Your task to perform on an android device: Show me popular videos on Youtube Image 0: 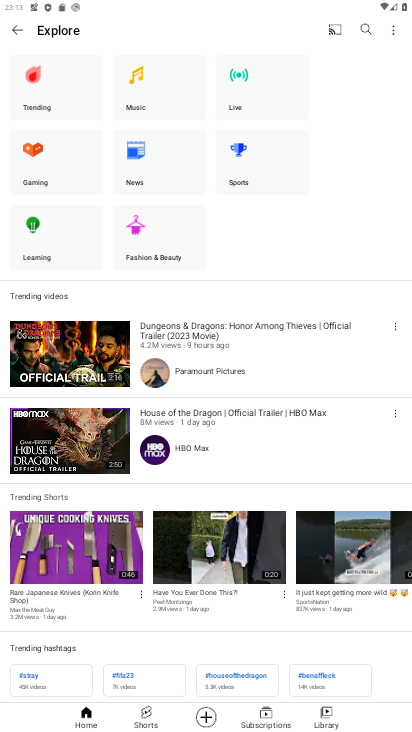
Step 0: press home button
Your task to perform on an android device: Show me popular videos on Youtube Image 1: 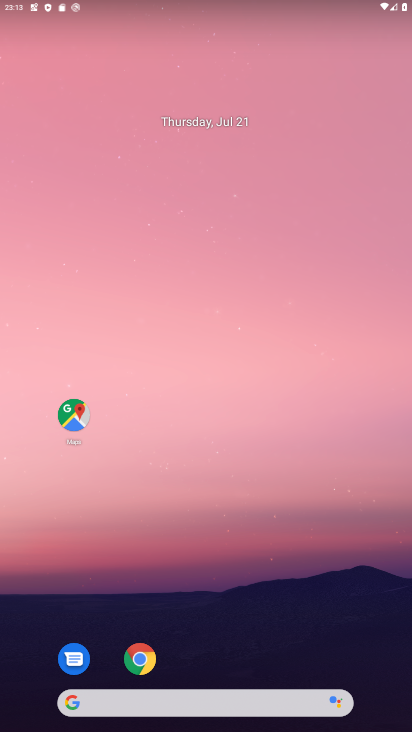
Step 1: drag from (243, 549) to (242, 55)
Your task to perform on an android device: Show me popular videos on Youtube Image 2: 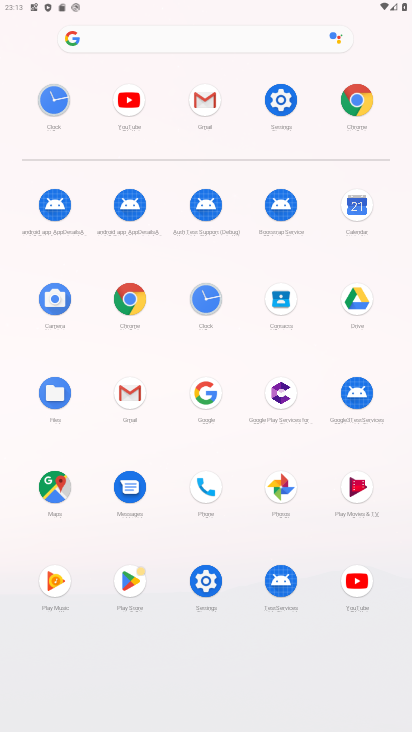
Step 2: click (124, 96)
Your task to perform on an android device: Show me popular videos on Youtube Image 3: 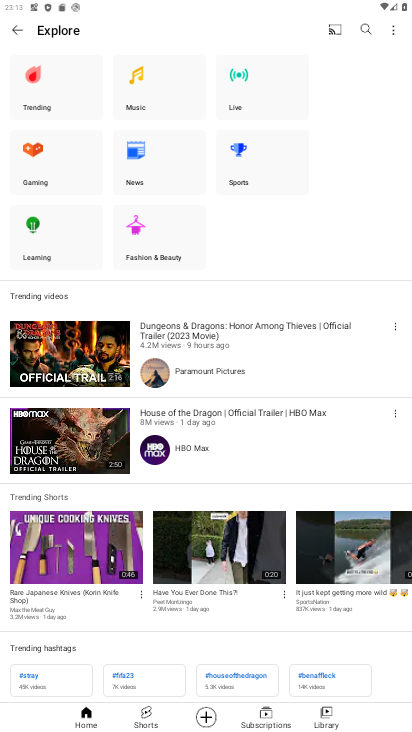
Step 3: task complete